Your task to perform on an android device: change the clock display to show seconds Image 0: 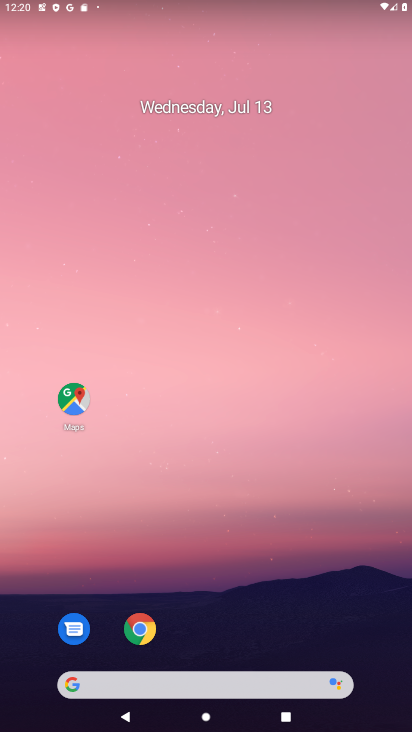
Step 0: drag from (224, 618) to (261, 208)
Your task to perform on an android device: change the clock display to show seconds Image 1: 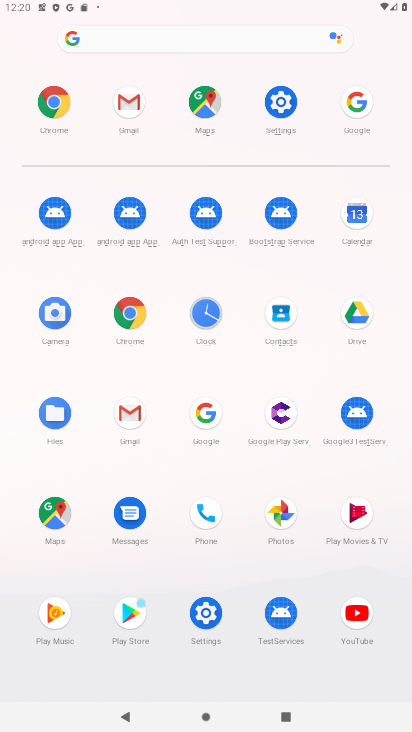
Step 1: click (201, 314)
Your task to perform on an android device: change the clock display to show seconds Image 2: 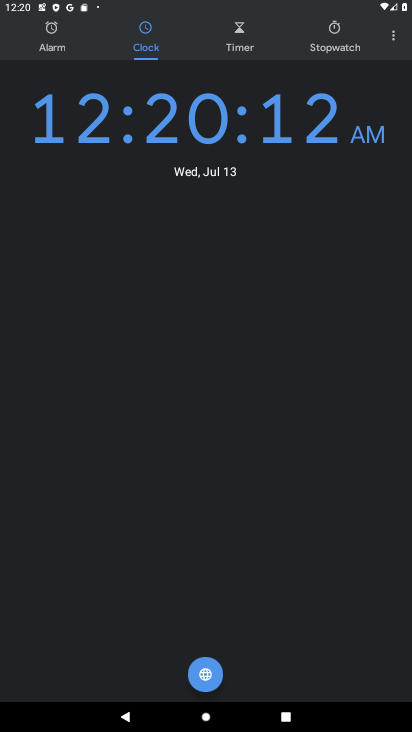
Step 2: click (389, 35)
Your task to perform on an android device: change the clock display to show seconds Image 3: 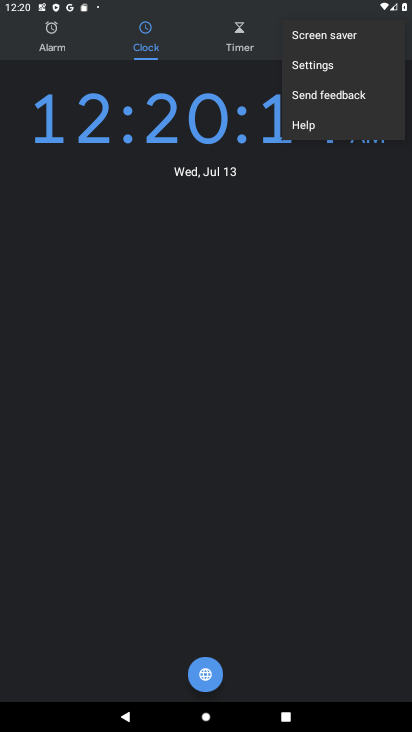
Step 3: click (336, 61)
Your task to perform on an android device: change the clock display to show seconds Image 4: 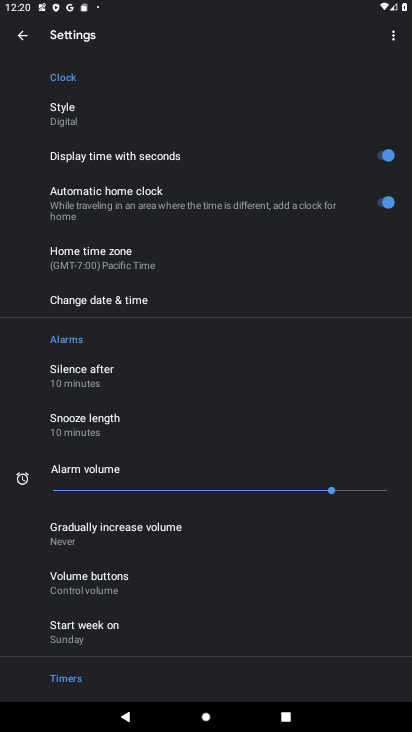
Step 4: task complete